Your task to perform on an android device: uninstall "LinkedIn" Image 0: 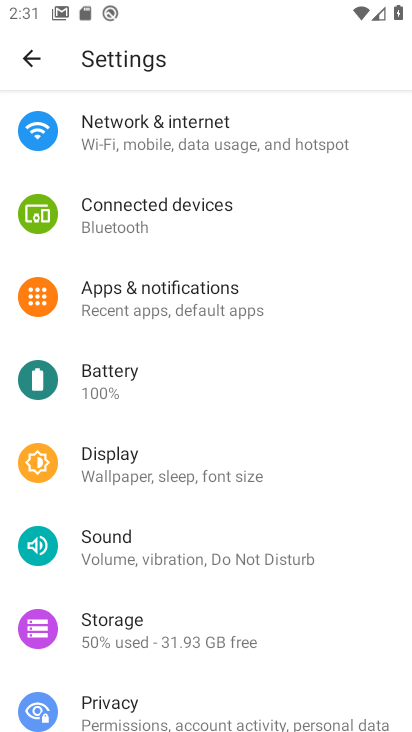
Step 0: press back button
Your task to perform on an android device: uninstall "LinkedIn" Image 1: 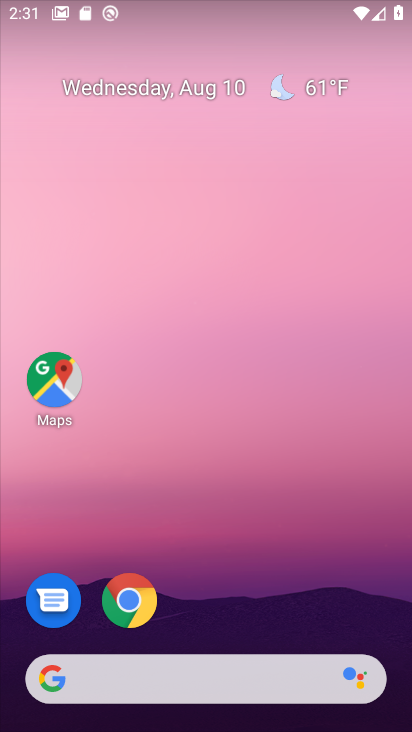
Step 1: drag from (199, 597) to (257, 73)
Your task to perform on an android device: uninstall "LinkedIn" Image 2: 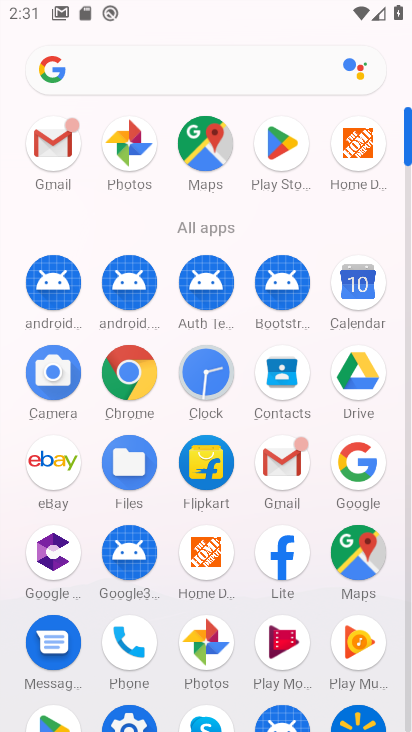
Step 2: click (278, 158)
Your task to perform on an android device: uninstall "LinkedIn" Image 3: 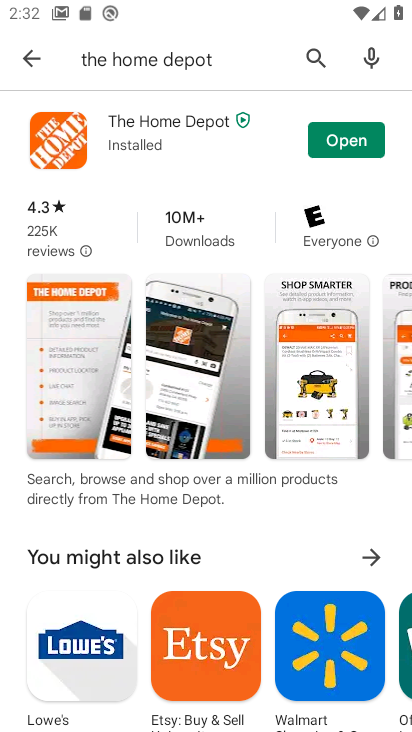
Step 3: click (314, 51)
Your task to perform on an android device: uninstall "LinkedIn" Image 4: 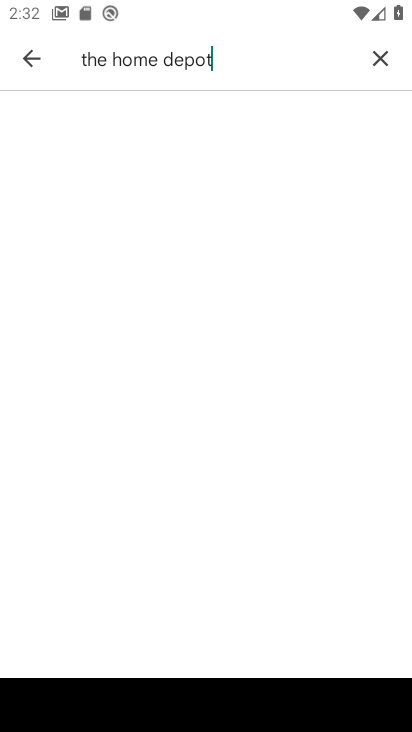
Step 4: click (375, 61)
Your task to perform on an android device: uninstall "LinkedIn" Image 5: 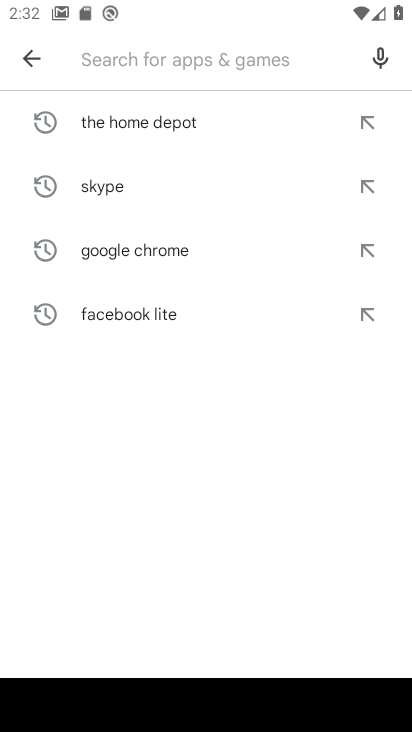
Step 5: click (150, 61)
Your task to perform on an android device: uninstall "LinkedIn" Image 6: 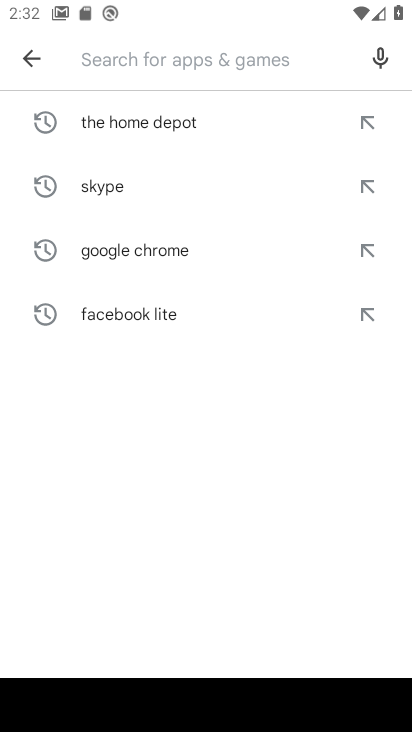
Step 6: type "linkedln"
Your task to perform on an android device: uninstall "LinkedIn" Image 7: 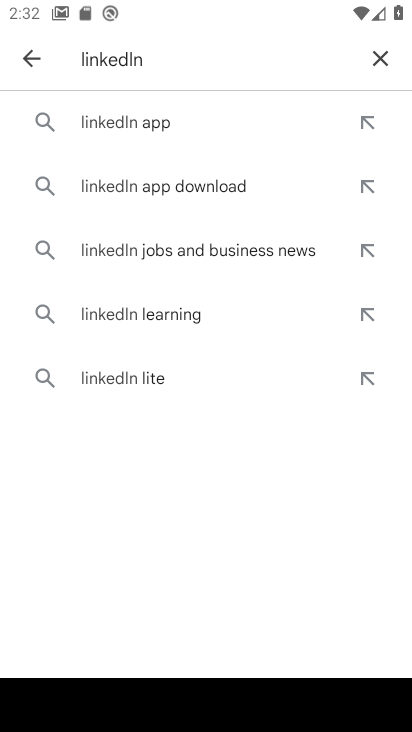
Step 7: click (170, 109)
Your task to perform on an android device: uninstall "LinkedIn" Image 8: 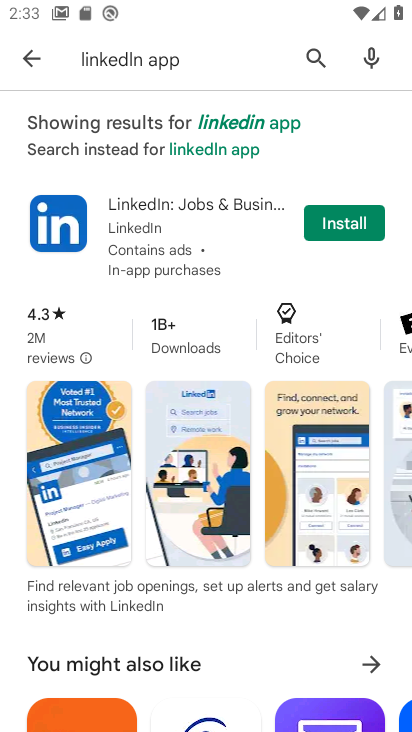
Step 8: task complete